Your task to perform on an android device: turn off wifi Image 0: 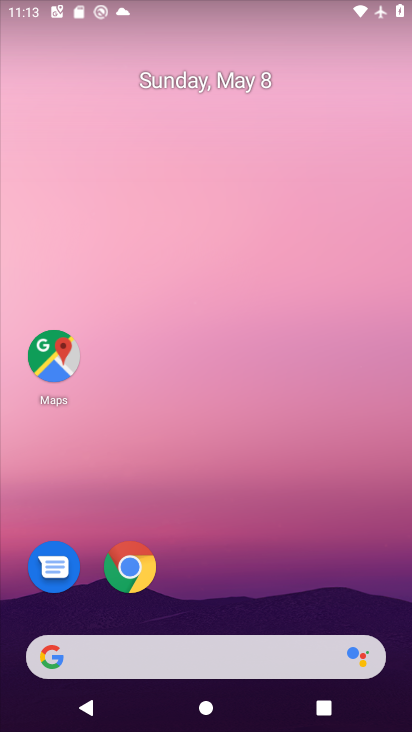
Step 0: drag from (302, 563) to (221, 224)
Your task to perform on an android device: turn off wifi Image 1: 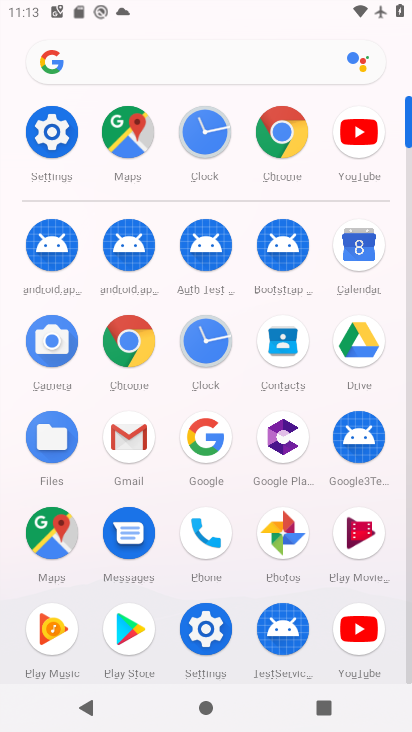
Step 1: click (44, 158)
Your task to perform on an android device: turn off wifi Image 2: 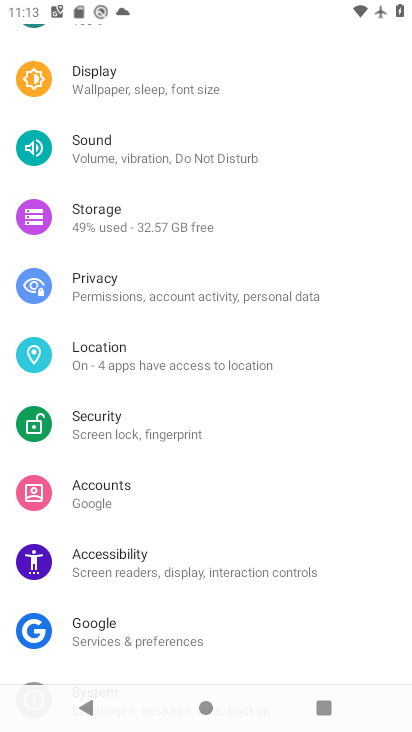
Step 2: drag from (203, 172) to (184, 539)
Your task to perform on an android device: turn off wifi Image 3: 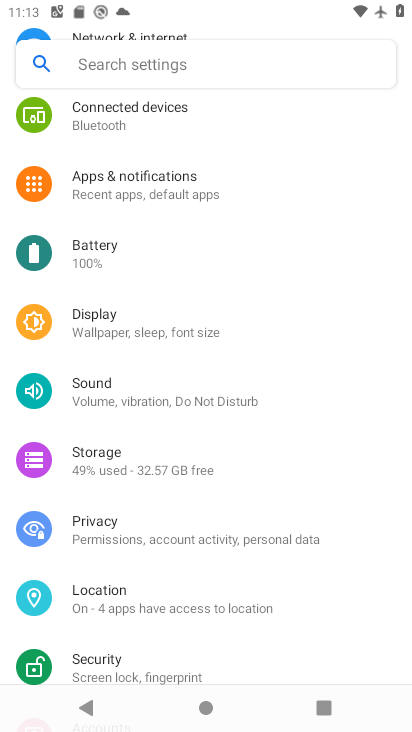
Step 3: drag from (185, 172) to (235, 555)
Your task to perform on an android device: turn off wifi Image 4: 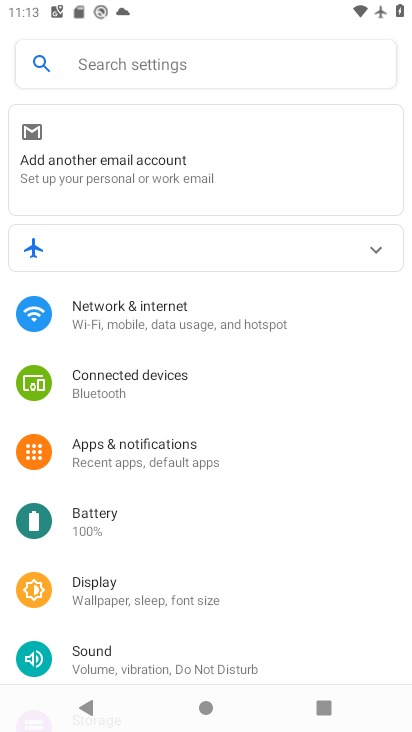
Step 4: click (145, 334)
Your task to perform on an android device: turn off wifi Image 5: 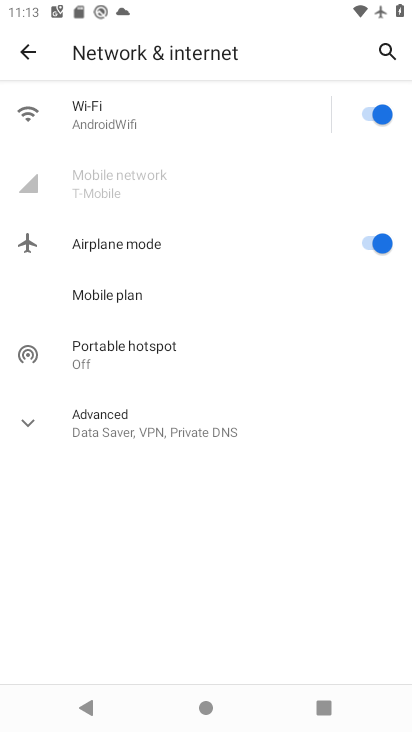
Step 5: task complete